Your task to perform on an android device: turn off translation in the chrome app Image 0: 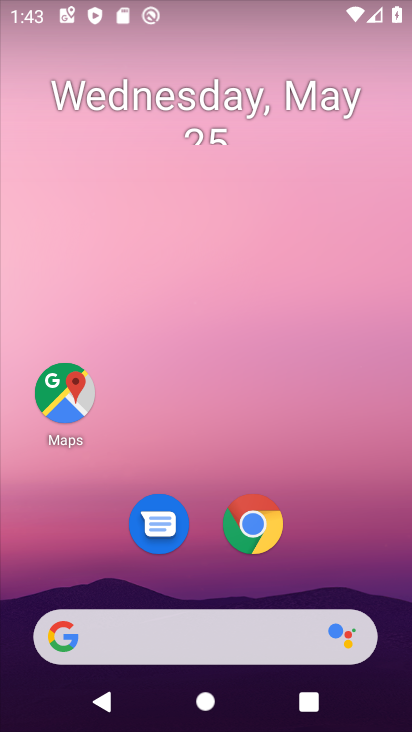
Step 0: click (267, 520)
Your task to perform on an android device: turn off translation in the chrome app Image 1: 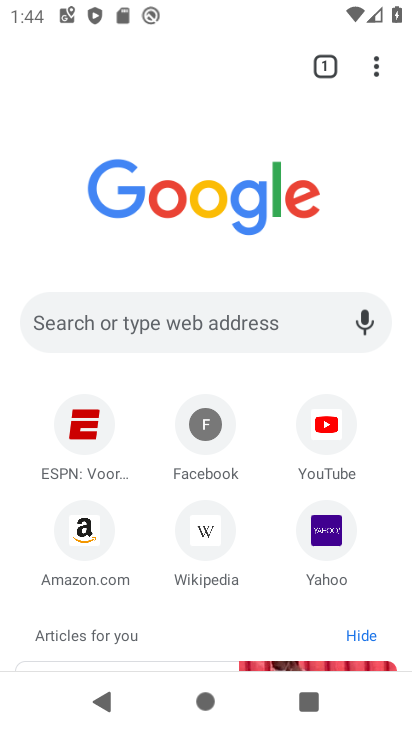
Step 1: click (376, 62)
Your task to perform on an android device: turn off translation in the chrome app Image 2: 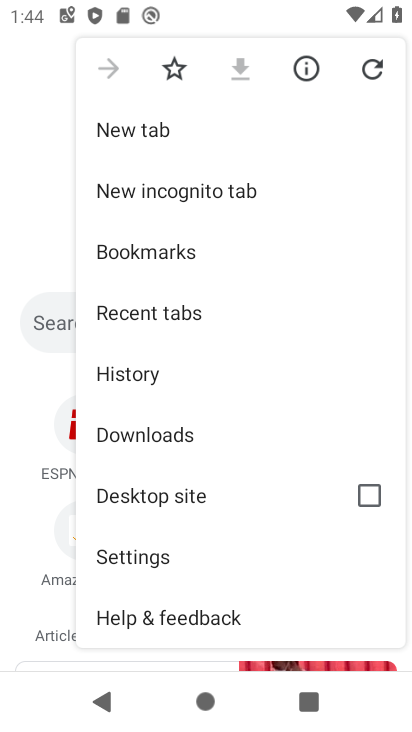
Step 2: click (173, 555)
Your task to perform on an android device: turn off translation in the chrome app Image 3: 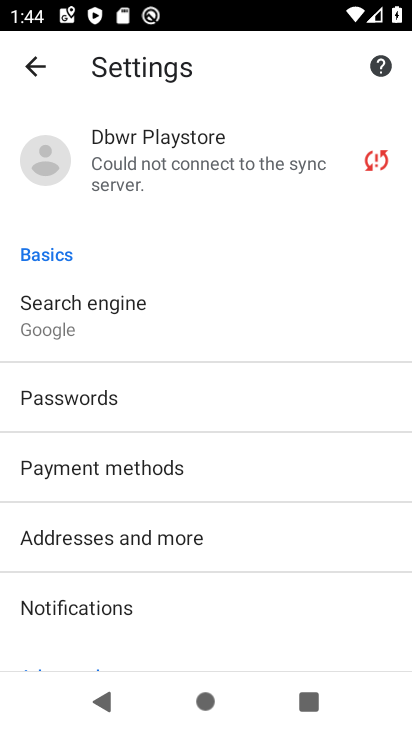
Step 3: drag from (233, 493) to (262, 321)
Your task to perform on an android device: turn off translation in the chrome app Image 4: 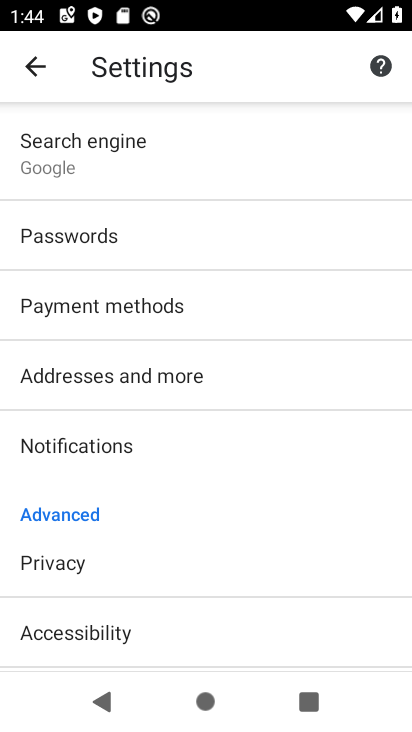
Step 4: drag from (214, 494) to (261, 236)
Your task to perform on an android device: turn off translation in the chrome app Image 5: 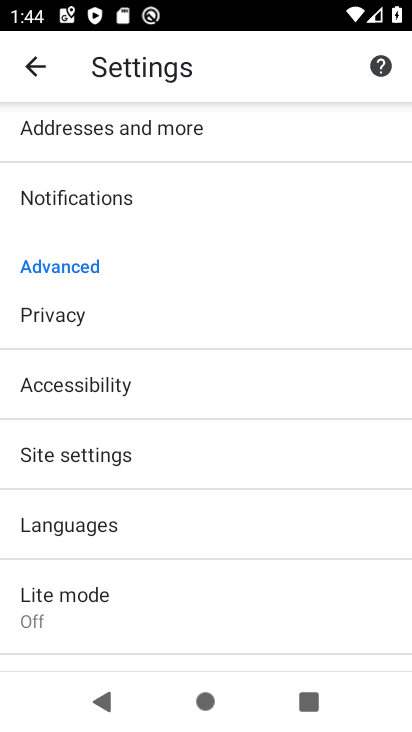
Step 5: click (177, 524)
Your task to perform on an android device: turn off translation in the chrome app Image 6: 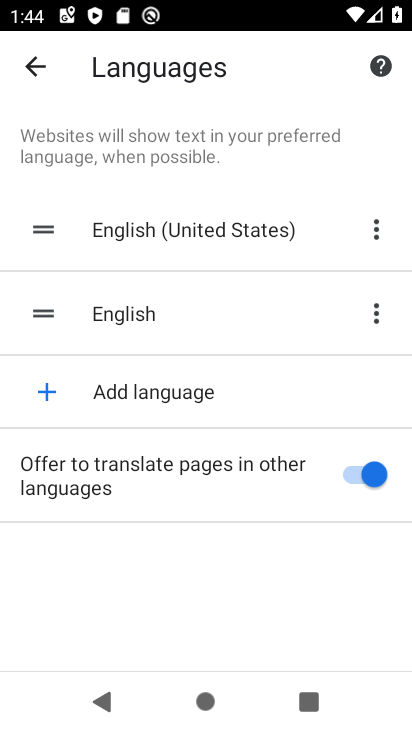
Step 6: click (361, 463)
Your task to perform on an android device: turn off translation in the chrome app Image 7: 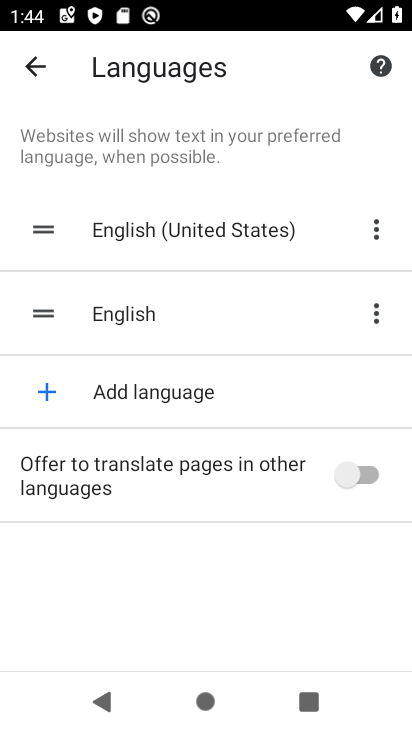
Step 7: task complete